Your task to perform on an android device: Open Wikipedia Image 0: 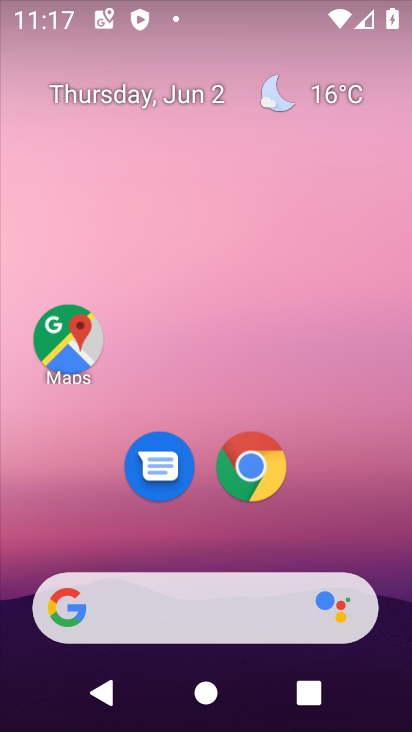
Step 0: click (221, 465)
Your task to perform on an android device: Open Wikipedia Image 1: 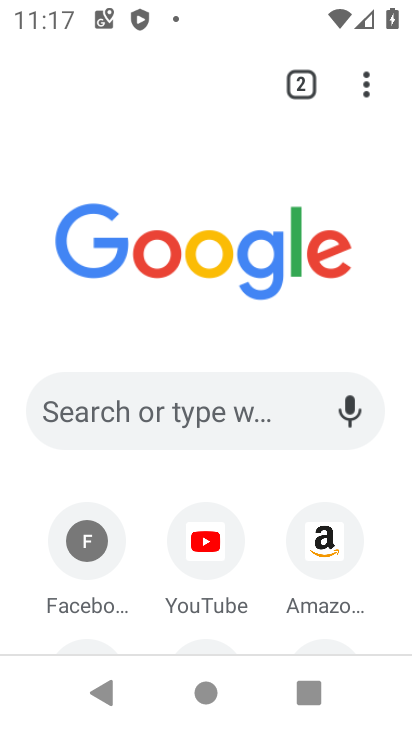
Step 1: drag from (182, 559) to (198, 296)
Your task to perform on an android device: Open Wikipedia Image 2: 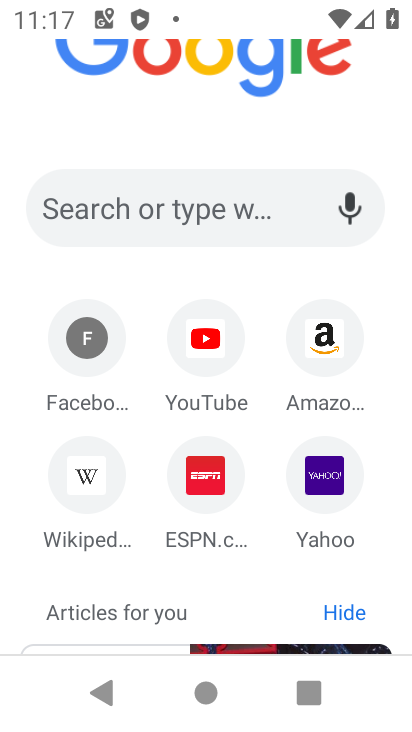
Step 2: click (105, 473)
Your task to perform on an android device: Open Wikipedia Image 3: 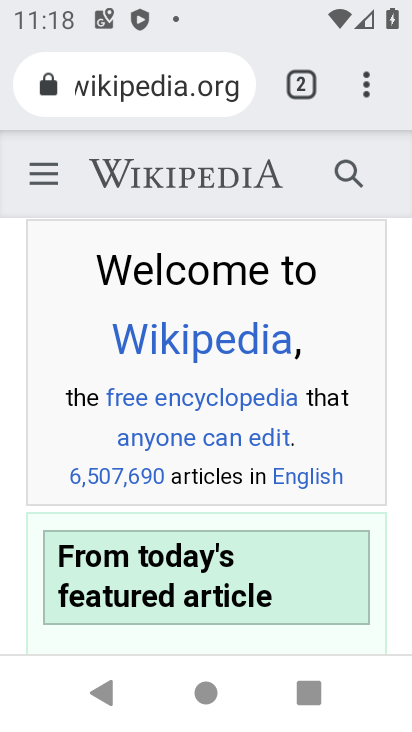
Step 3: task complete